Your task to perform on an android device: Go to Yahoo.com Image 0: 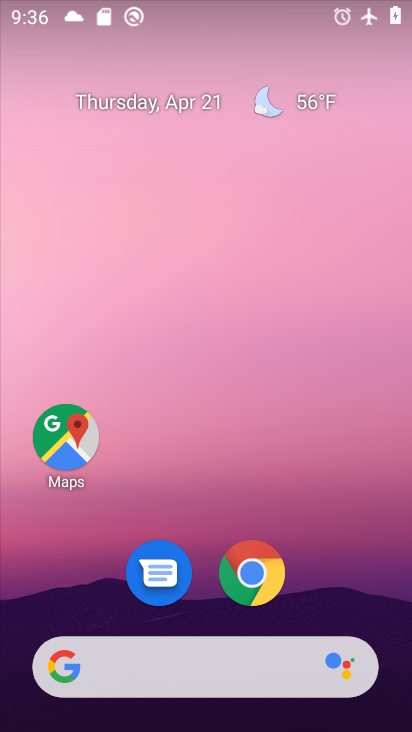
Step 0: click (251, 572)
Your task to perform on an android device: Go to Yahoo.com Image 1: 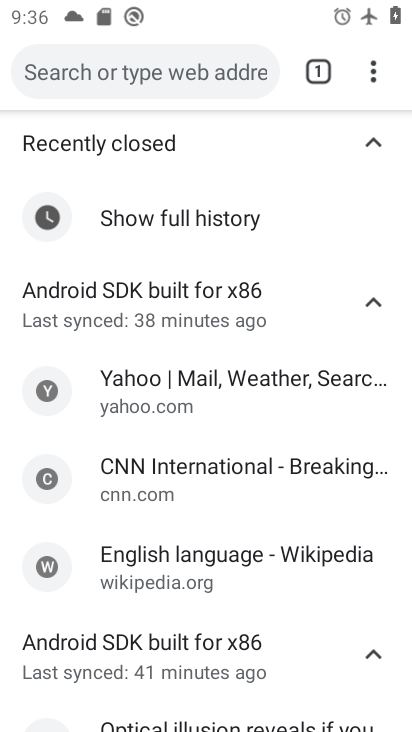
Step 1: click (219, 71)
Your task to perform on an android device: Go to Yahoo.com Image 2: 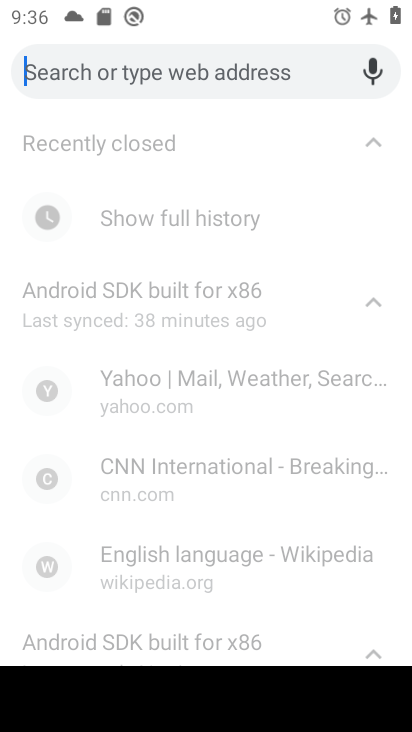
Step 2: type "Yahoo.com"
Your task to perform on an android device: Go to Yahoo.com Image 3: 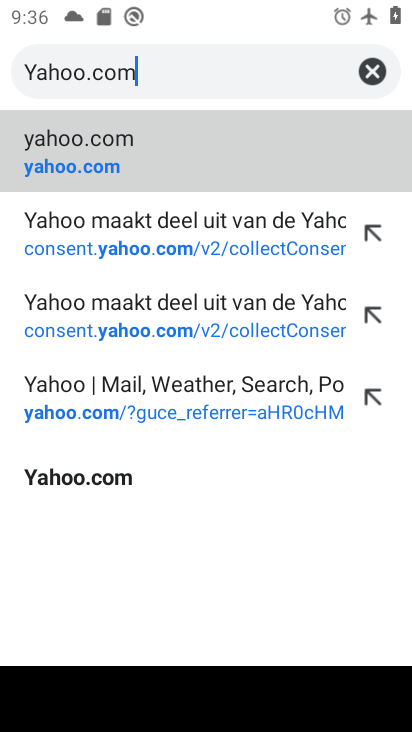
Step 3: type ""
Your task to perform on an android device: Go to Yahoo.com Image 4: 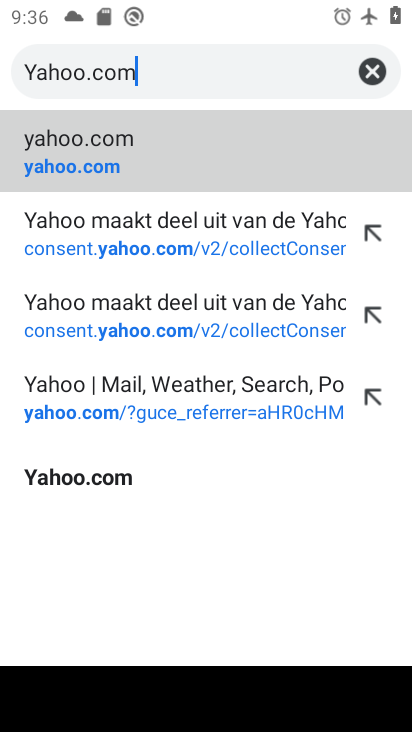
Step 4: click (87, 480)
Your task to perform on an android device: Go to Yahoo.com Image 5: 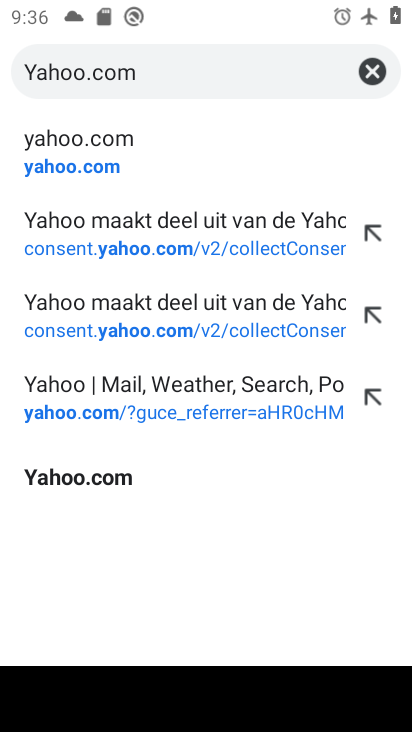
Step 5: click (124, 479)
Your task to perform on an android device: Go to Yahoo.com Image 6: 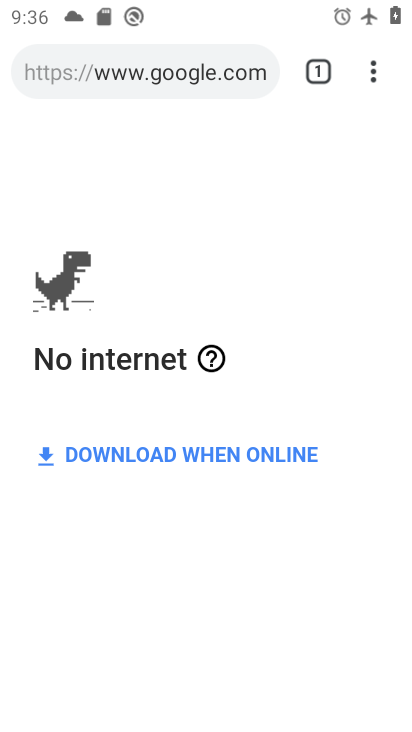
Step 6: task complete